Your task to perform on an android device: turn off airplane mode Image 0: 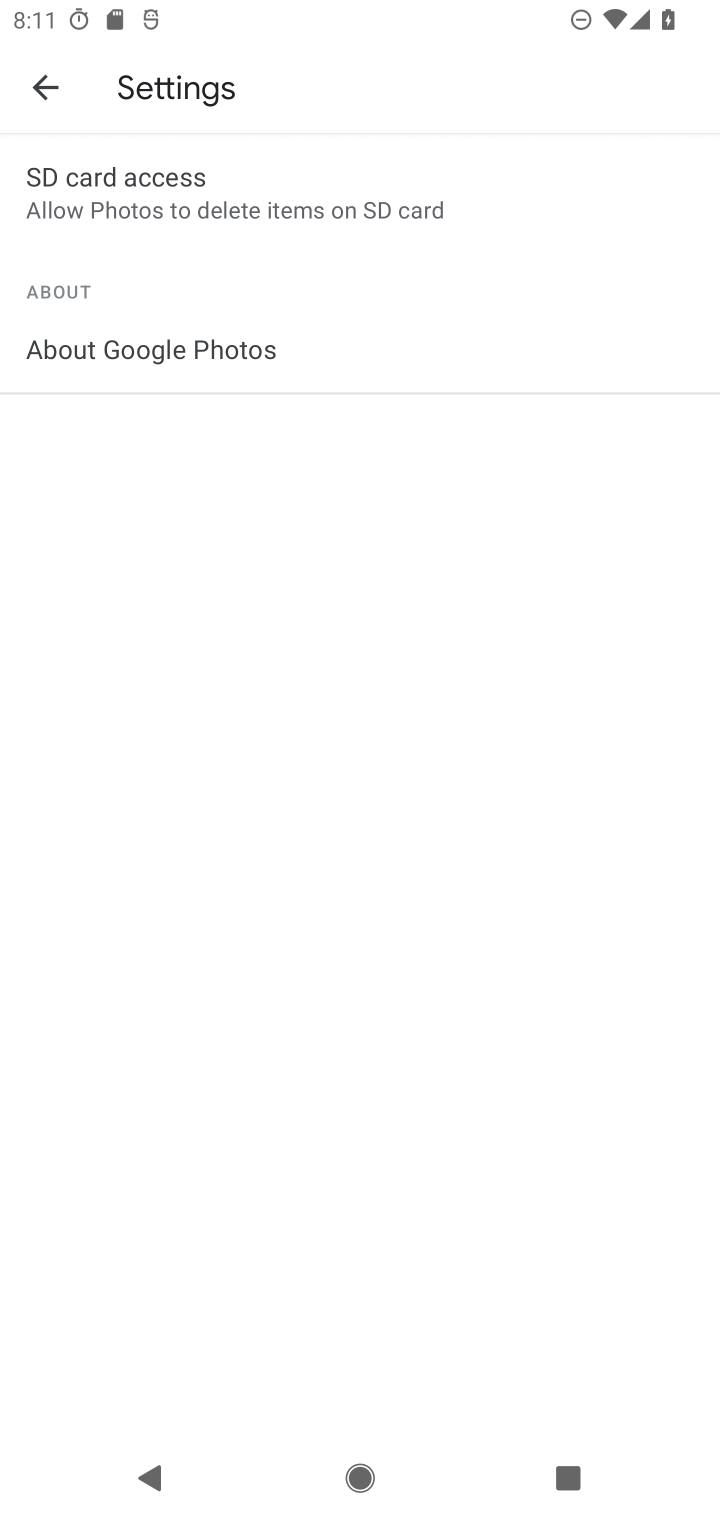
Step 0: press home button
Your task to perform on an android device: turn off airplane mode Image 1: 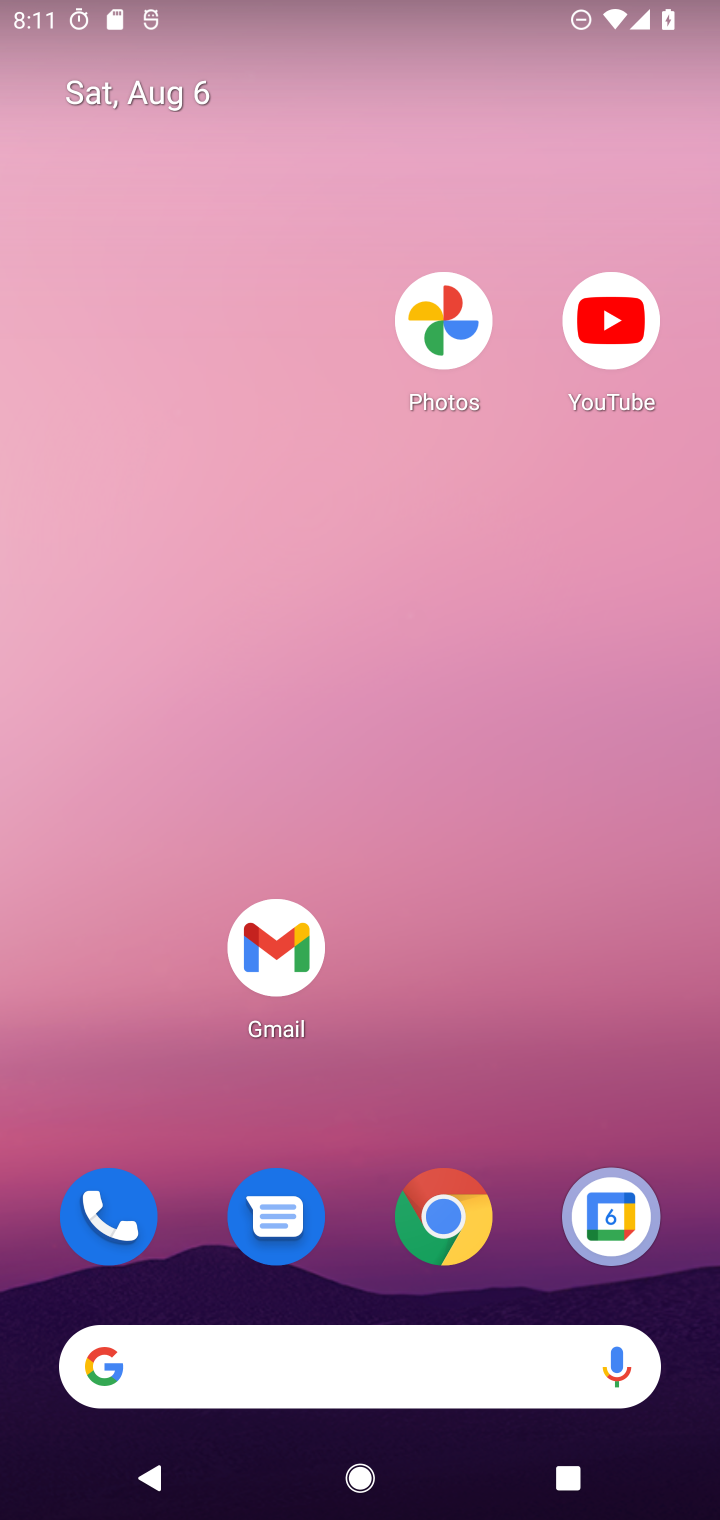
Step 1: drag from (497, 1057) to (350, 32)
Your task to perform on an android device: turn off airplane mode Image 2: 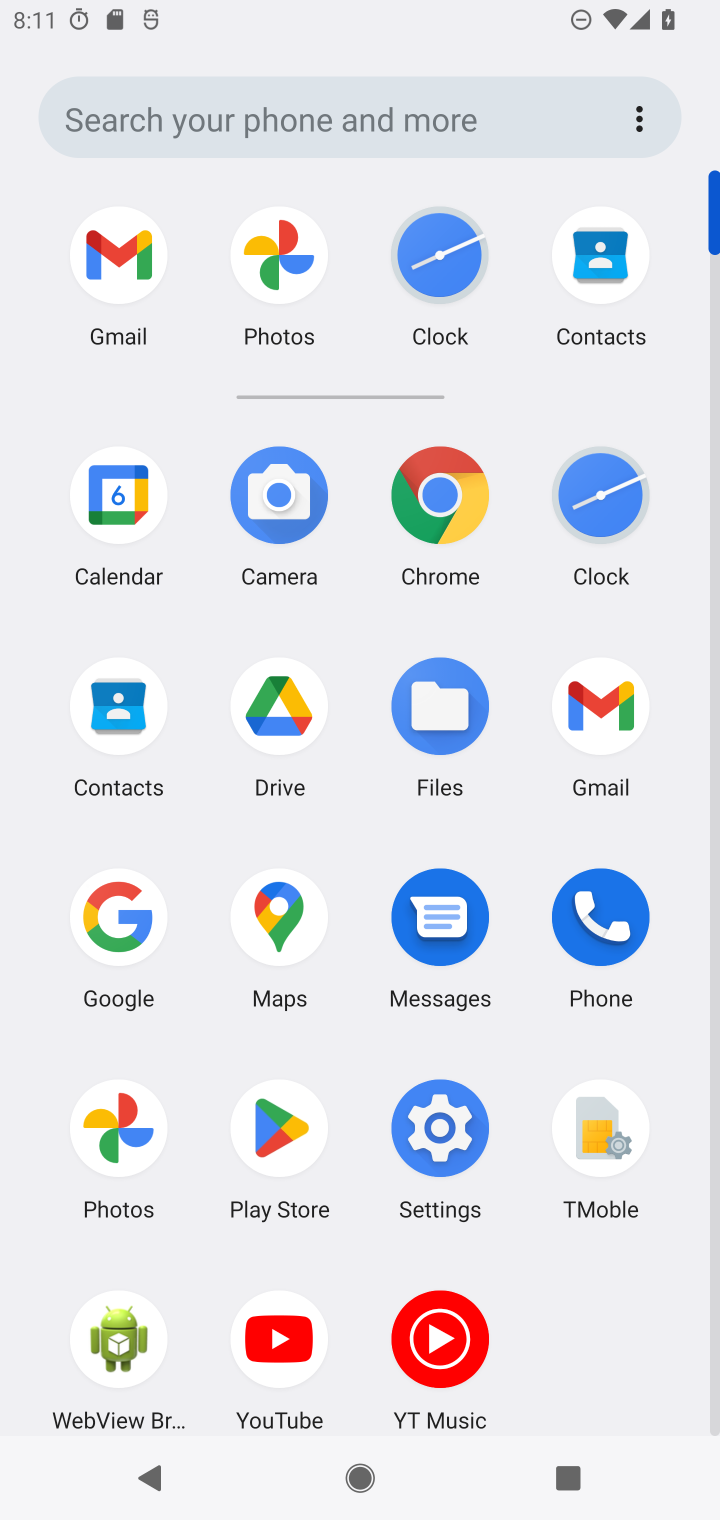
Step 2: click (466, 1118)
Your task to perform on an android device: turn off airplane mode Image 3: 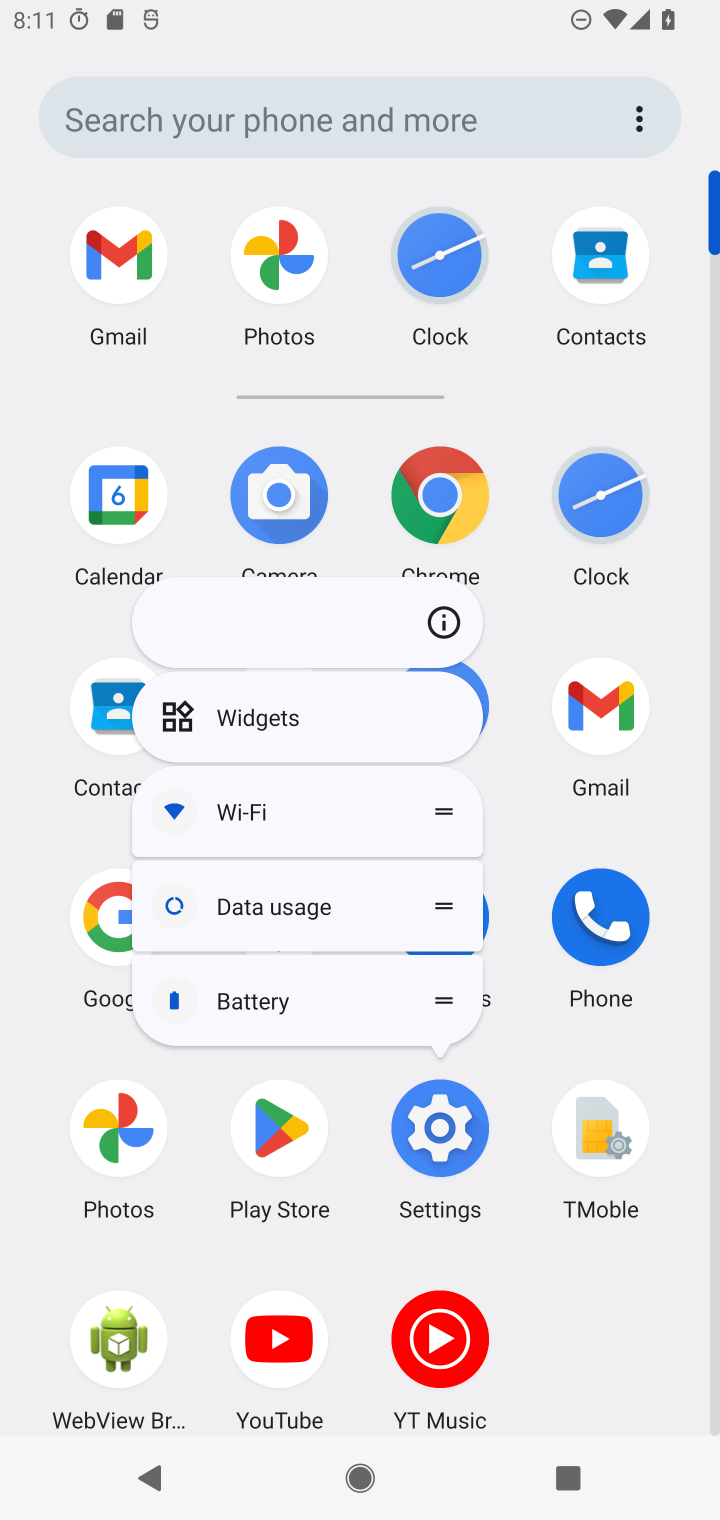
Step 3: click (447, 1137)
Your task to perform on an android device: turn off airplane mode Image 4: 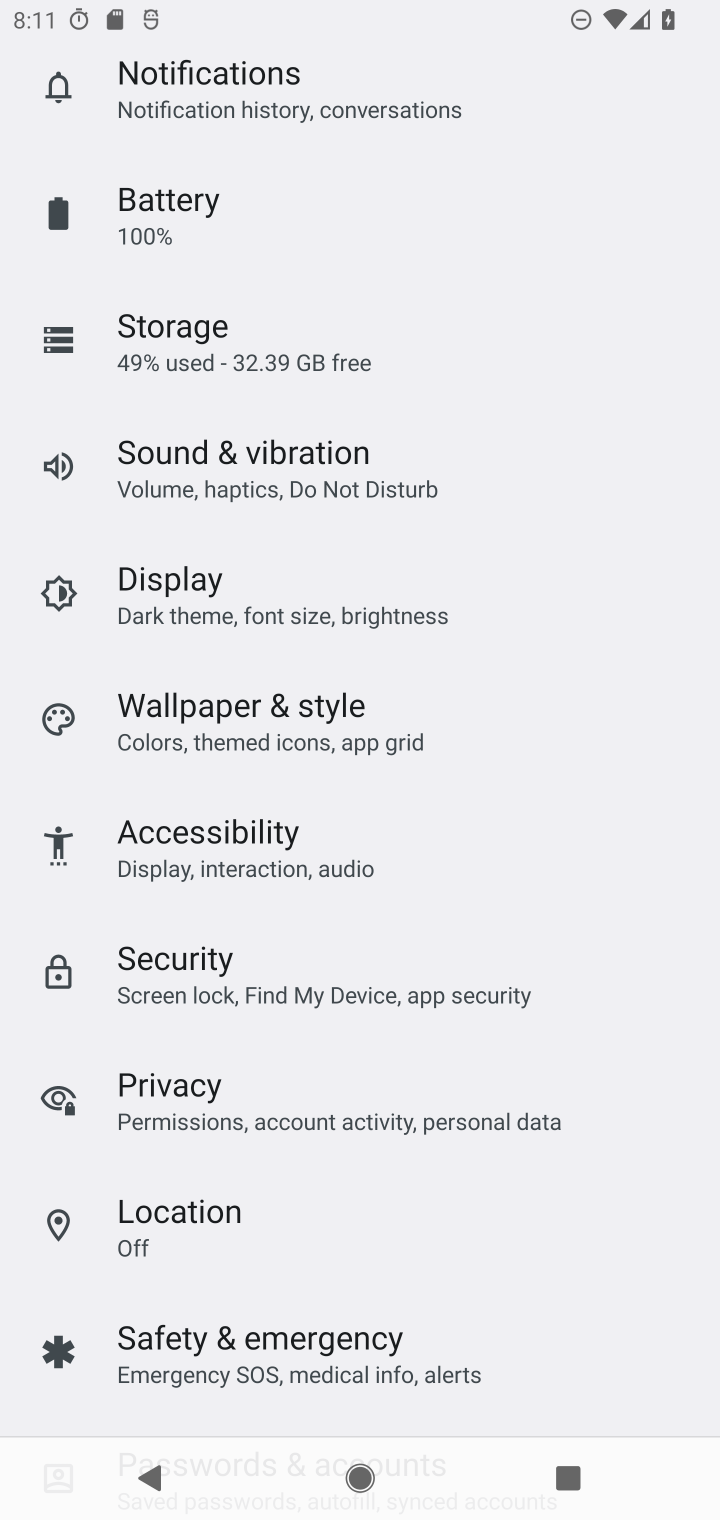
Step 4: drag from (537, 353) to (499, 1093)
Your task to perform on an android device: turn off airplane mode Image 5: 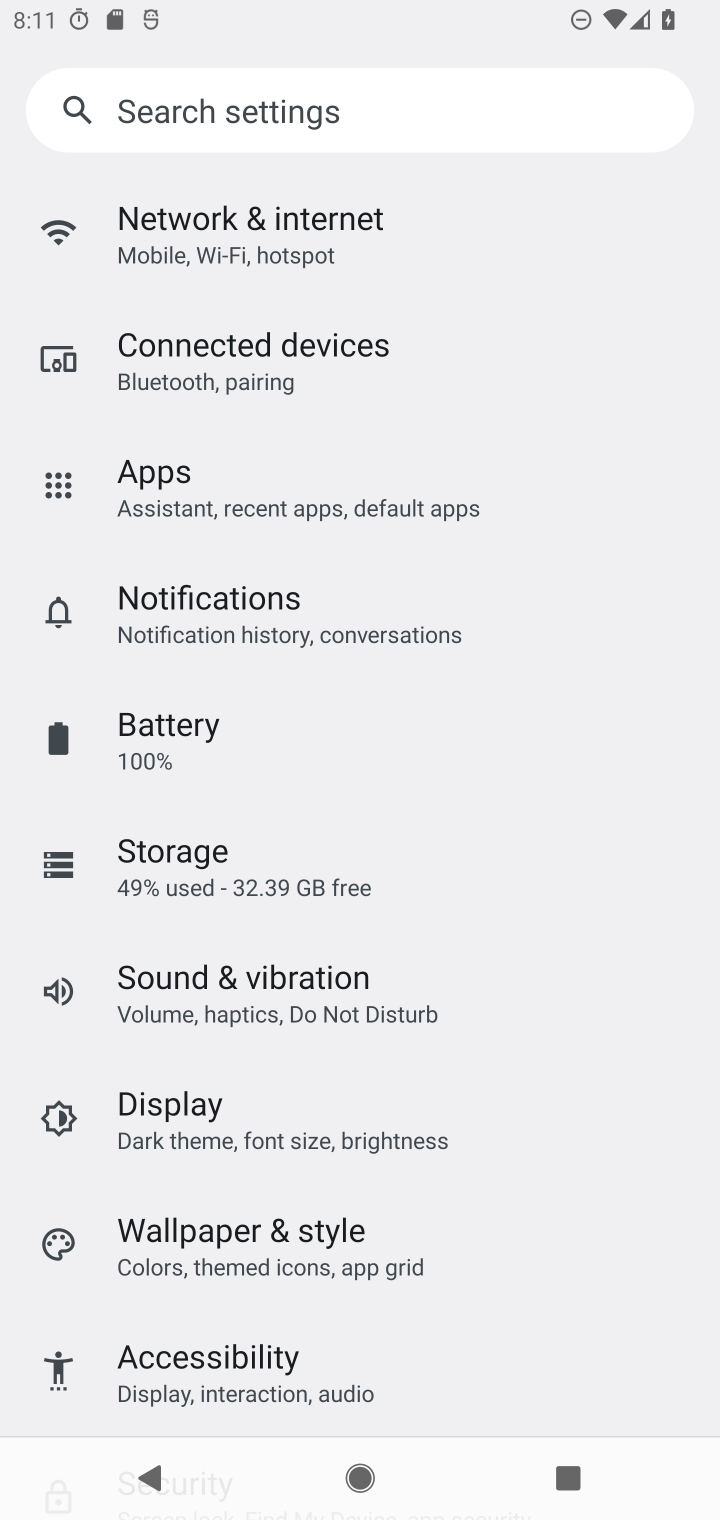
Step 5: click (322, 233)
Your task to perform on an android device: turn off airplane mode Image 6: 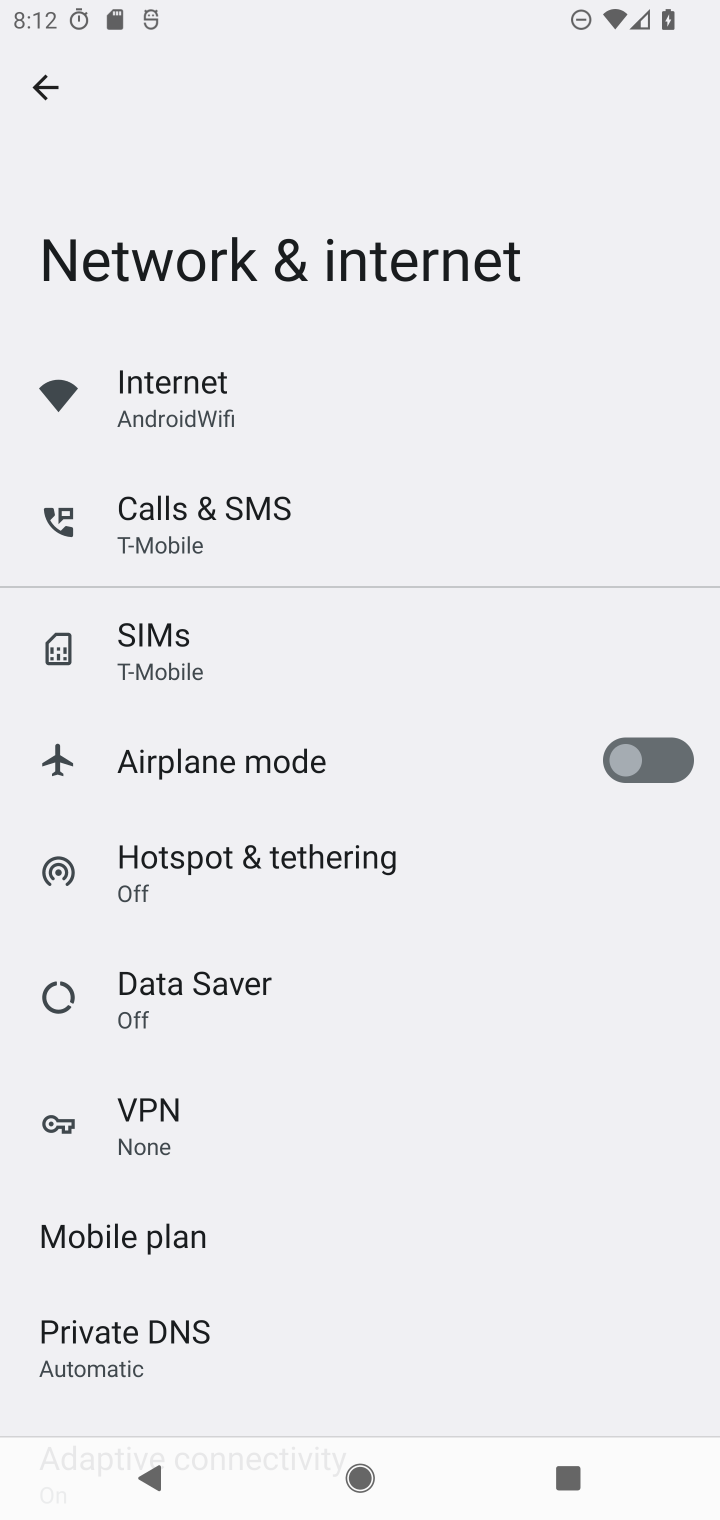
Step 6: click (187, 413)
Your task to perform on an android device: turn off airplane mode Image 7: 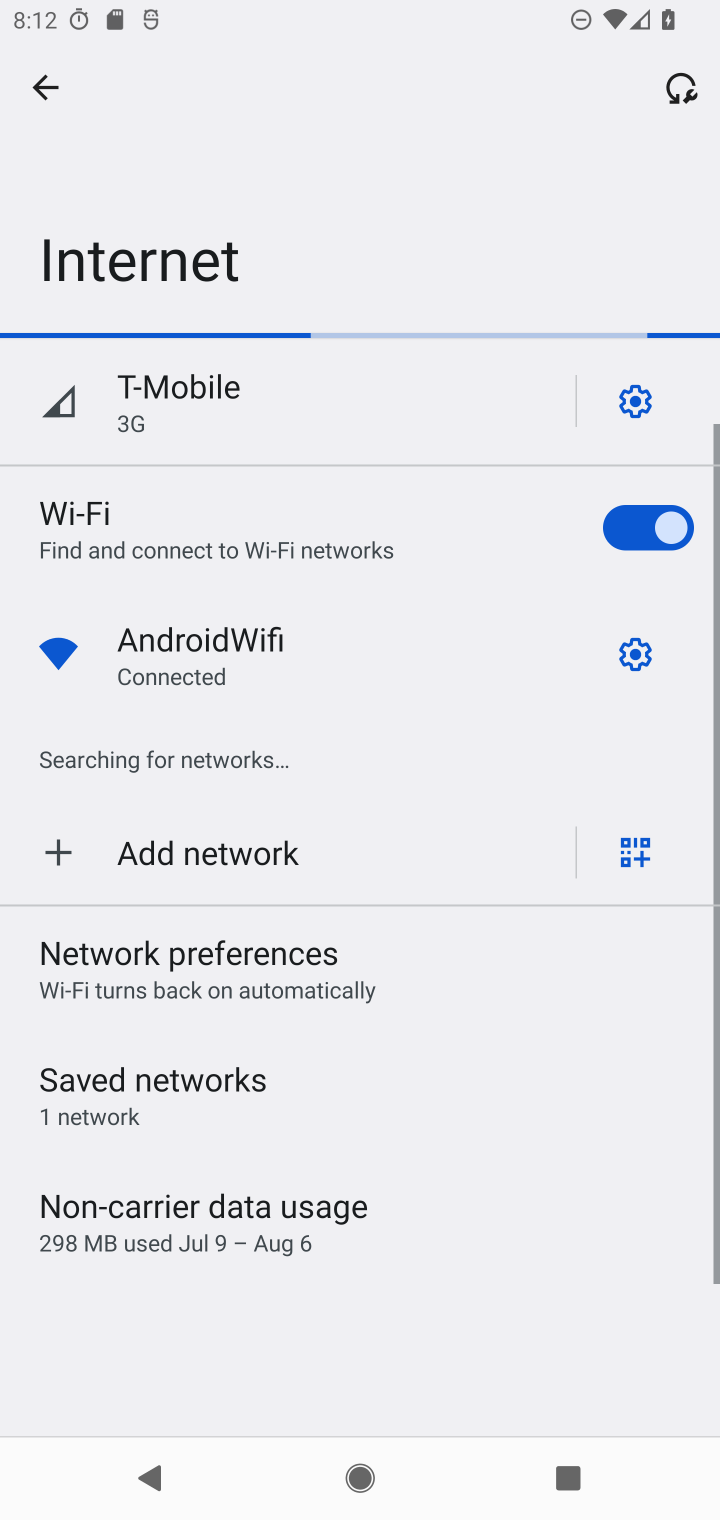
Step 7: click (626, 522)
Your task to perform on an android device: turn off airplane mode Image 8: 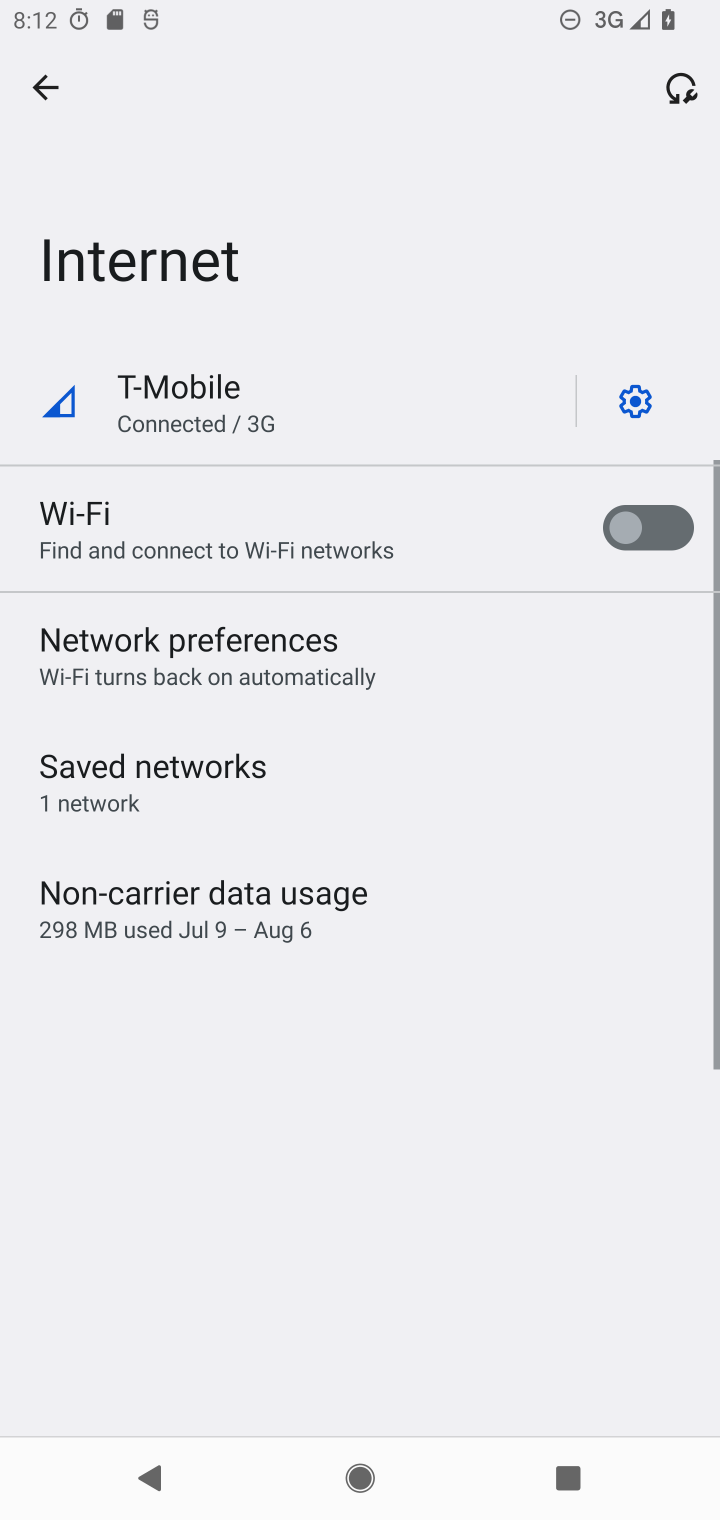
Step 8: click (626, 522)
Your task to perform on an android device: turn off airplane mode Image 9: 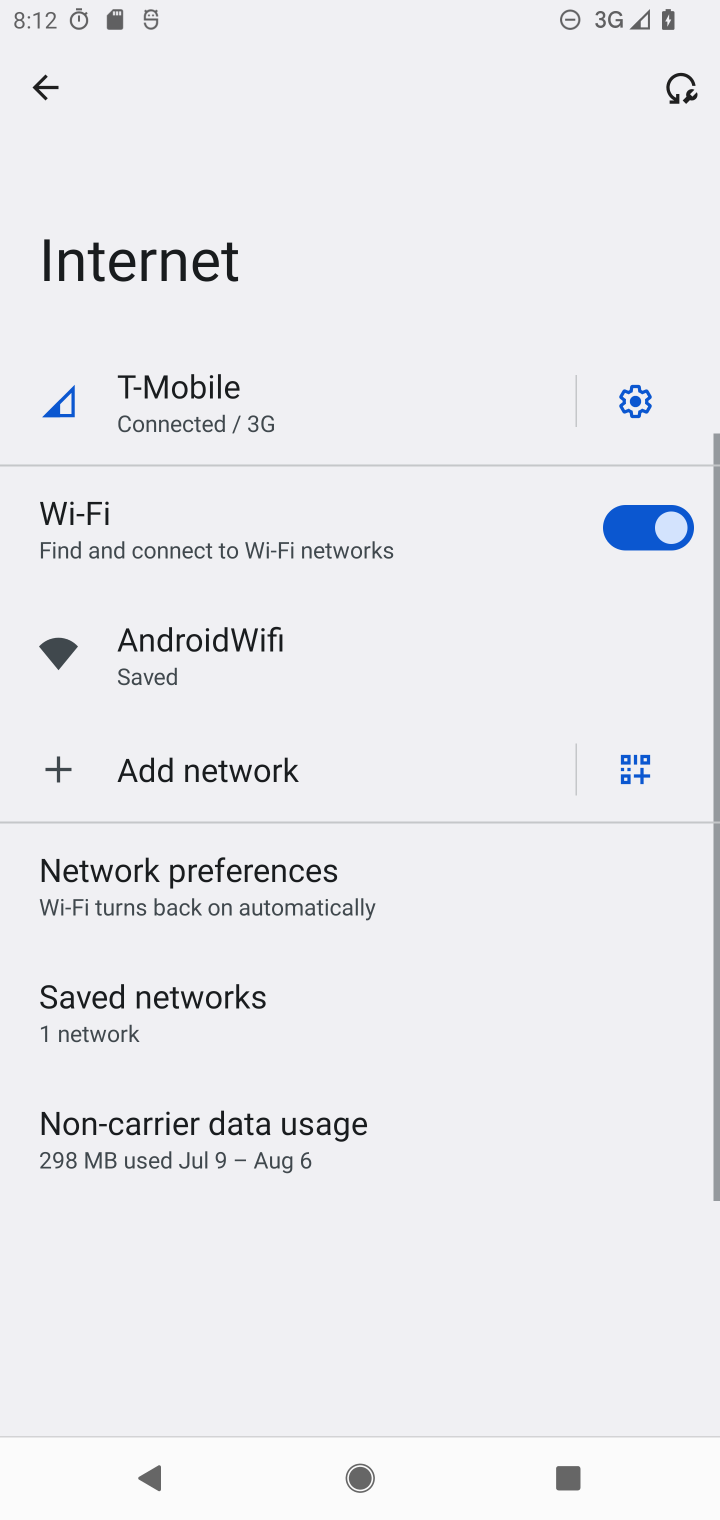
Step 9: task complete